Your task to perform on an android device: Open Google Maps Image 0: 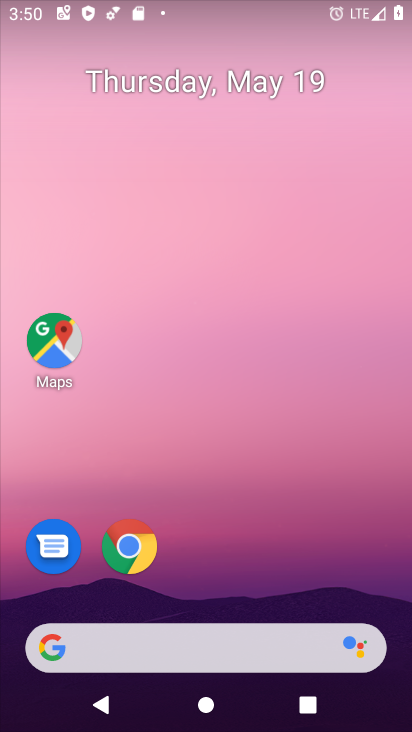
Step 0: press home button
Your task to perform on an android device: Open Google Maps Image 1: 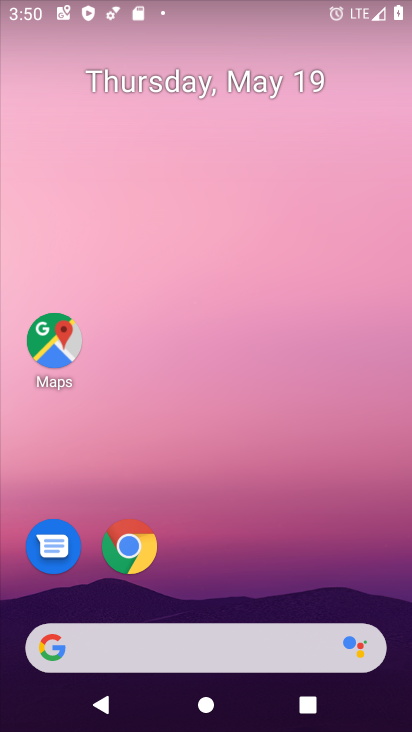
Step 1: click (56, 338)
Your task to perform on an android device: Open Google Maps Image 2: 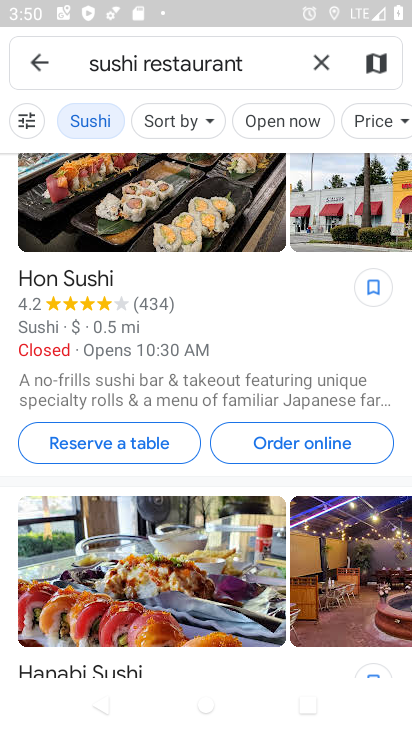
Step 2: click (41, 66)
Your task to perform on an android device: Open Google Maps Image 3: 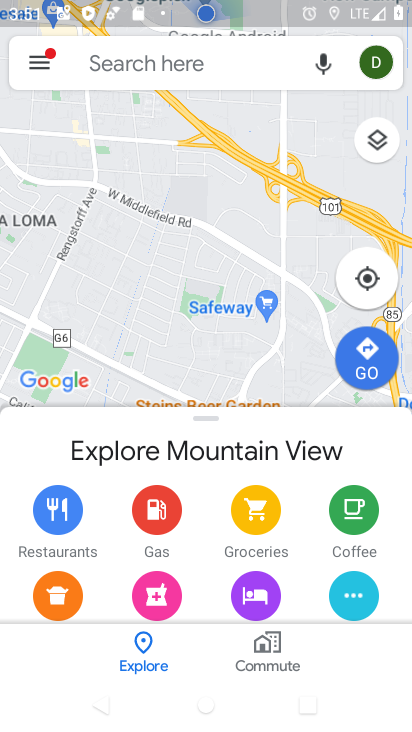
Step 3: task complete